Your task to perform on an android device: change the clock display to show seconds Image 0: 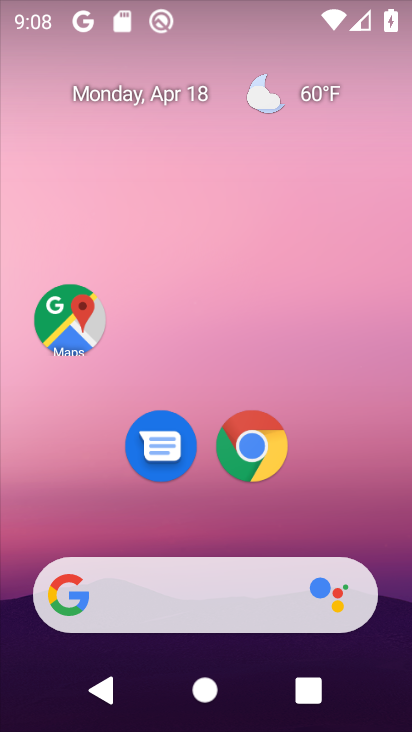
Step 0: drag from (353, 493) to (344, 151)
Your task to perform on an android device: change the clock display to show seconds Image 1: 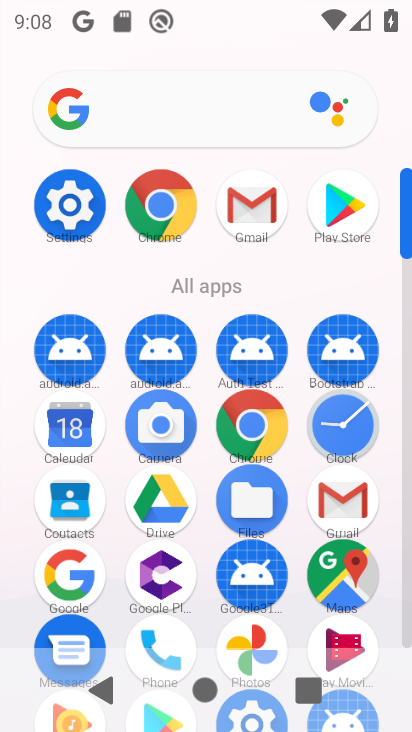
Step 1: click (346, 432)
Your task to perform on an android device: change the clock display to show seconds Image 2: 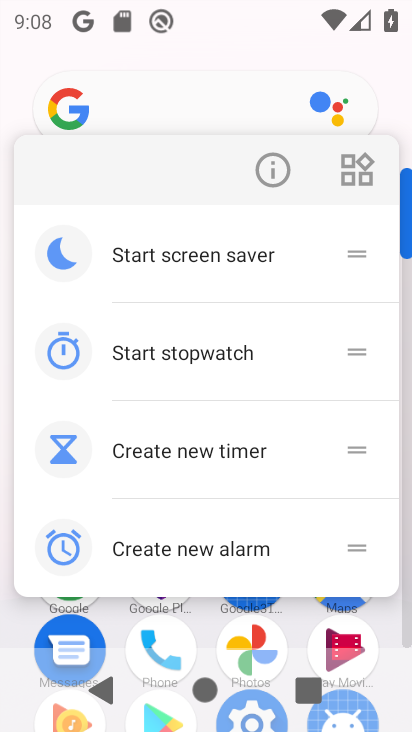
Step 2: drag from (404, 625) to (405, 324)
Your task to perform on an android device: change the clock display to show seconds Image 3: 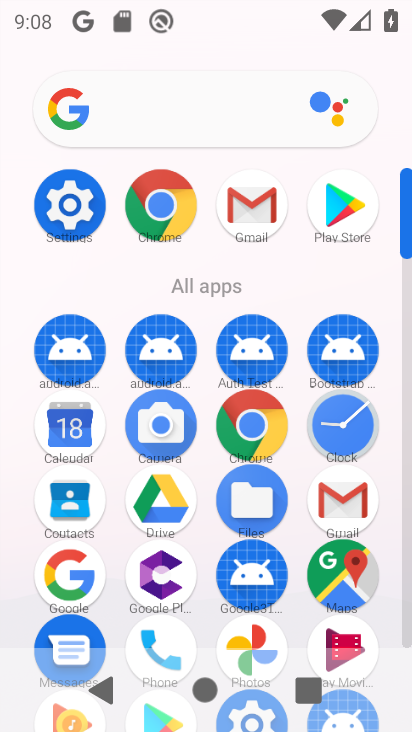
Step 3: click (333, 430)
Your task to perform on an android device: change the clock display to show seconds Image 4: 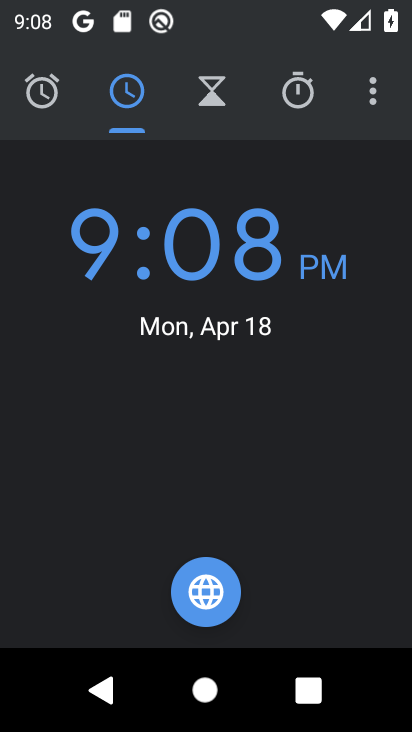
Step 4: click (373, 93)
Your task to perform on an android device: change the clock display to show seconds Image 5: 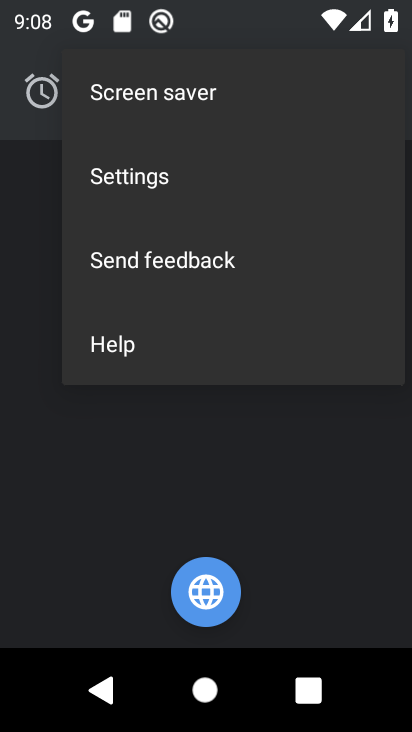
Step 5: click (142, 185)
Your task to perform on an android device: change the clock display to show seconds Image 6: 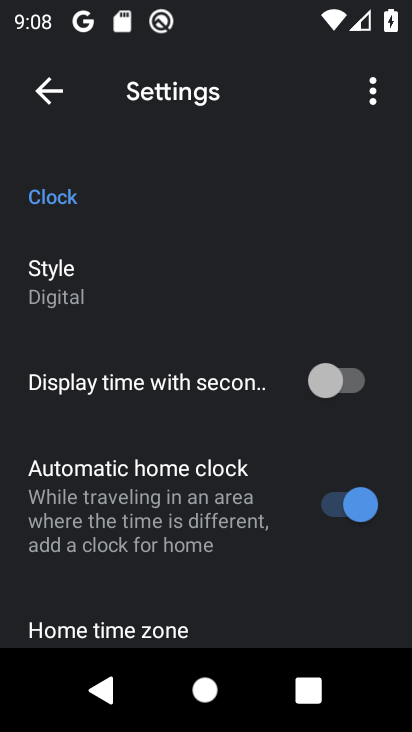
Step 6: click (319, 382)
Your task to perform on an android device: change the clock display to show seconds Image 7: 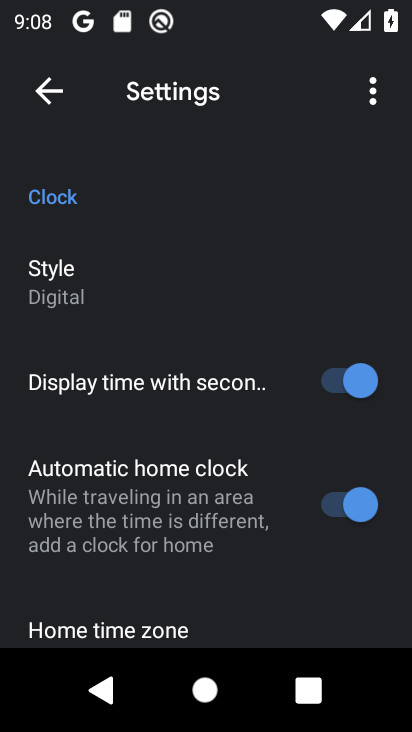
Step 7: task complete